Your task to perform on an android device: Open calendar and show me the second week of next month Image 0: 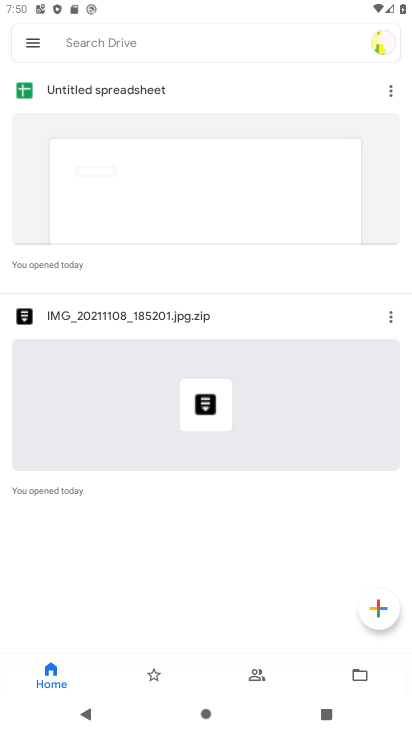
Step 0: press home button
Your task to perform on an android device: Open calendar and show me the second week of next month Image 1: 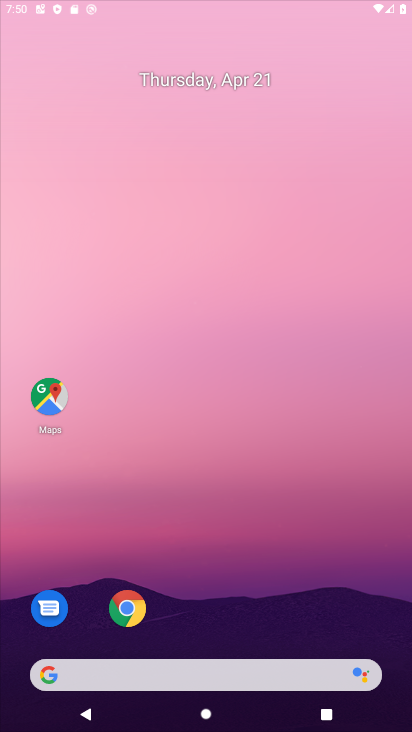
Step 1: press home button
Your task to perform on an android device: Open calendar and show me the second week of next month Image 2: 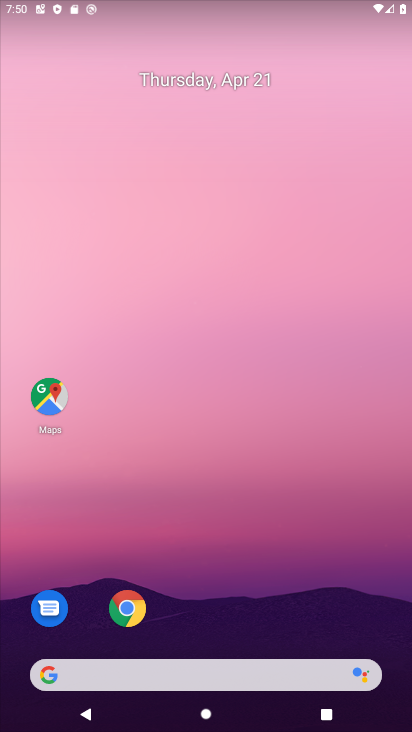
Step 2: drag from (176, 645) to (240, 382)
Your task to perform on an android device: Open calendar and show me the second week of next month Image 3: 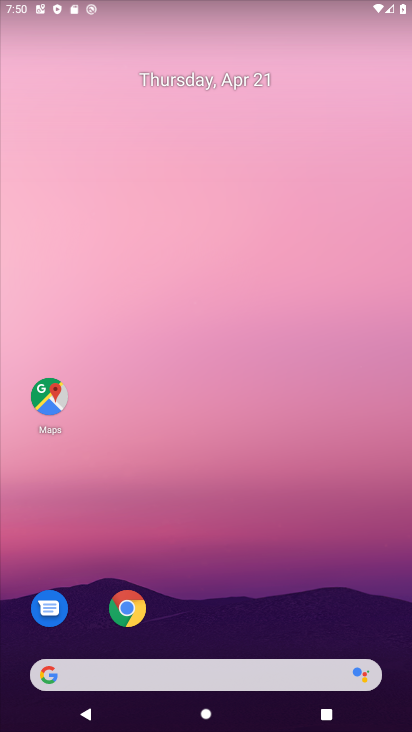
Step 3: drag from (191, 613) to (311, 149)
Your task to perform on an android device: Open calendar and show me the second week of next month Image 4: 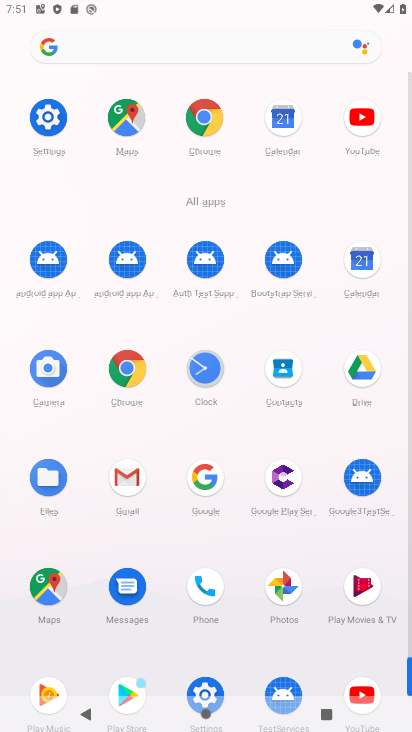
Step 4: click (364, 272)
Your task to perform on an android device: Open calendar and show me the second week of next month Image 5: 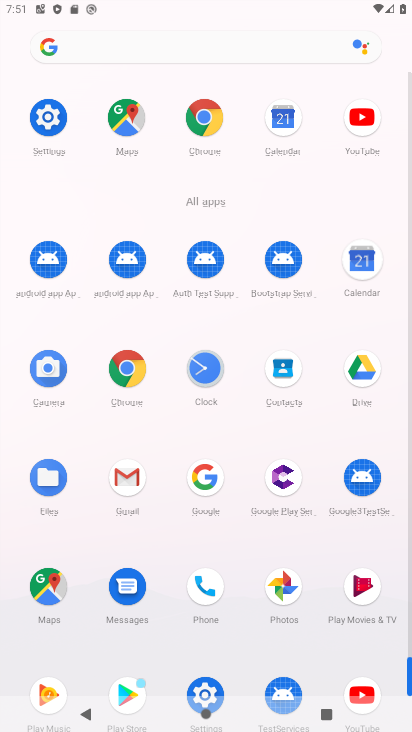
Step 5: click (364, 272)
Your task to perform on an android device: Open calendar and show me the second week of next month Image 6: 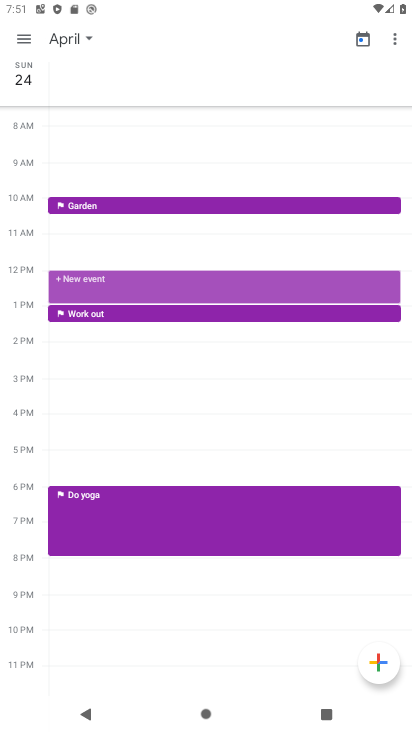
Step 6: click (32, 41)
Your task to perform on an android device: Open calendar and show me the second week of next month Image 7: 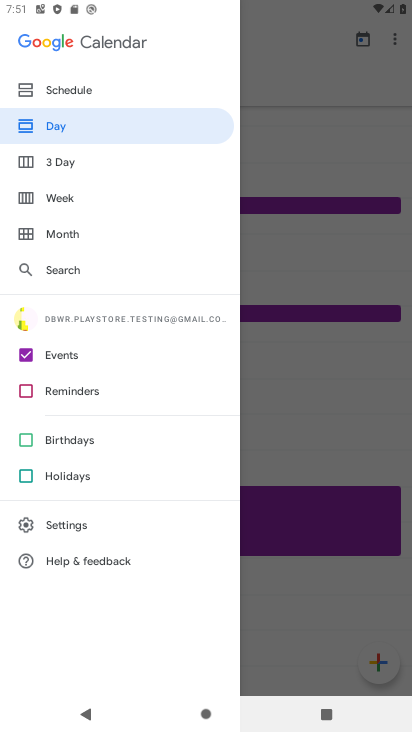
Step 7: click (68, 193)
Your task to perform on an android device: Open calendar and show me the second week of next month Image 8: 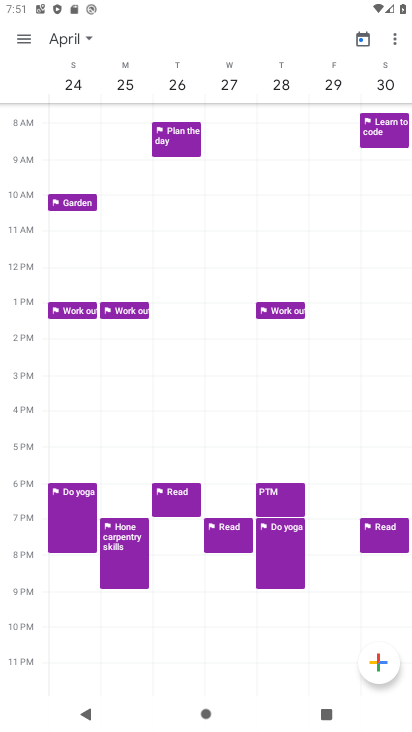
Step 8: task complete